Your task to perform on an android device: Open CNN.com Image 0: 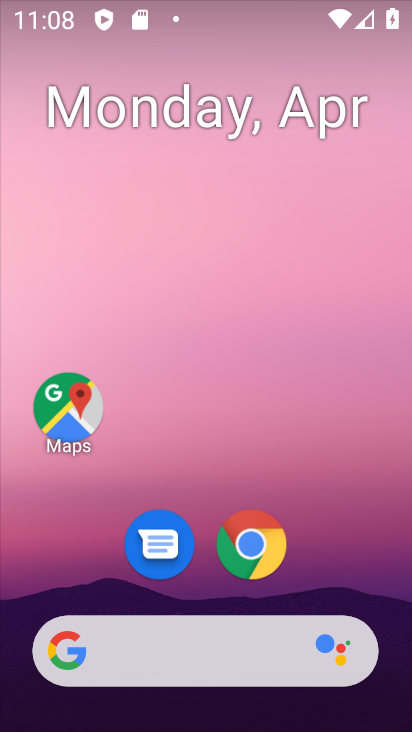
Step 0: click (250, 541)
Your task to perform on an android device: Open CNN.com Image 1: 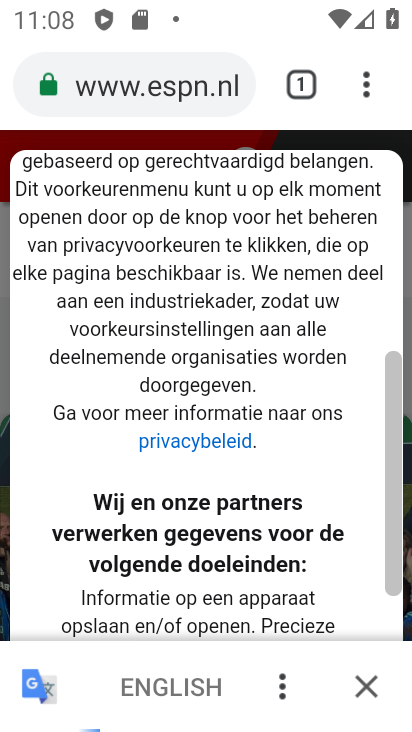
Step 1: click (240, 89)
Your task to perform on an android device: Open CNN.com Image 2: 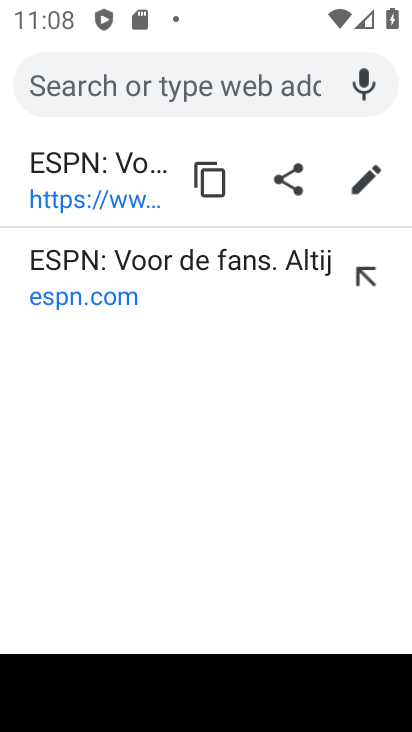
Step 2: type "cnn.com"
Your task to perform on an android device: Open CNN.com Image 3: 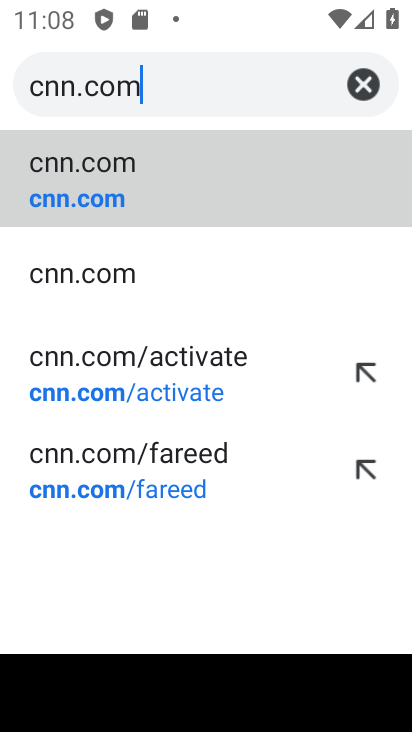
Step 3: click (55, 202)
Your task to perform on an android device: Open CNN.com Image 4: 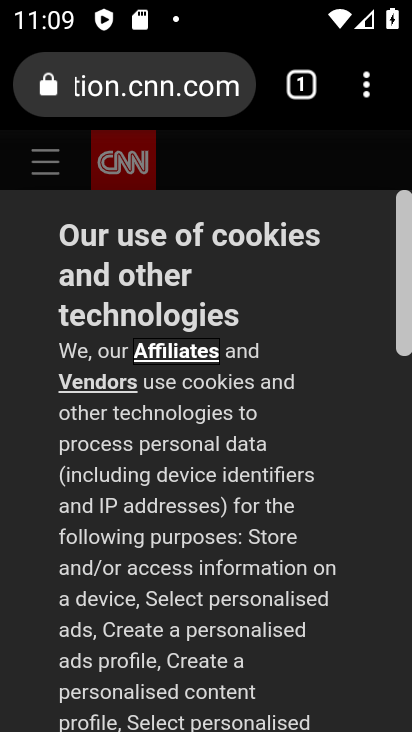
Step 4: task complete